Your task to perform on an android device: Add "macbook pro" to the cart on walmart Image 0: 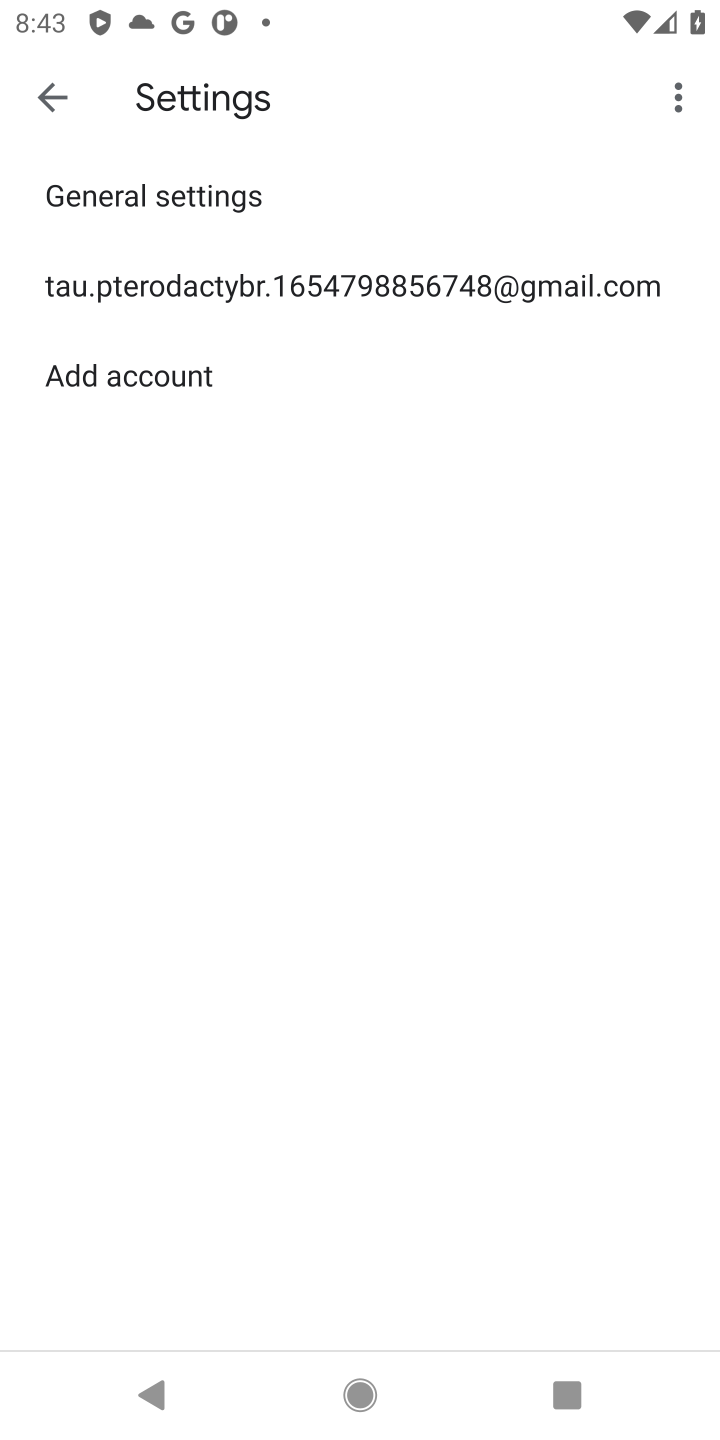
Step 0: press home button
Your task to perform on an android device: Add "macbook pro" to the cart on walmart Image 1: 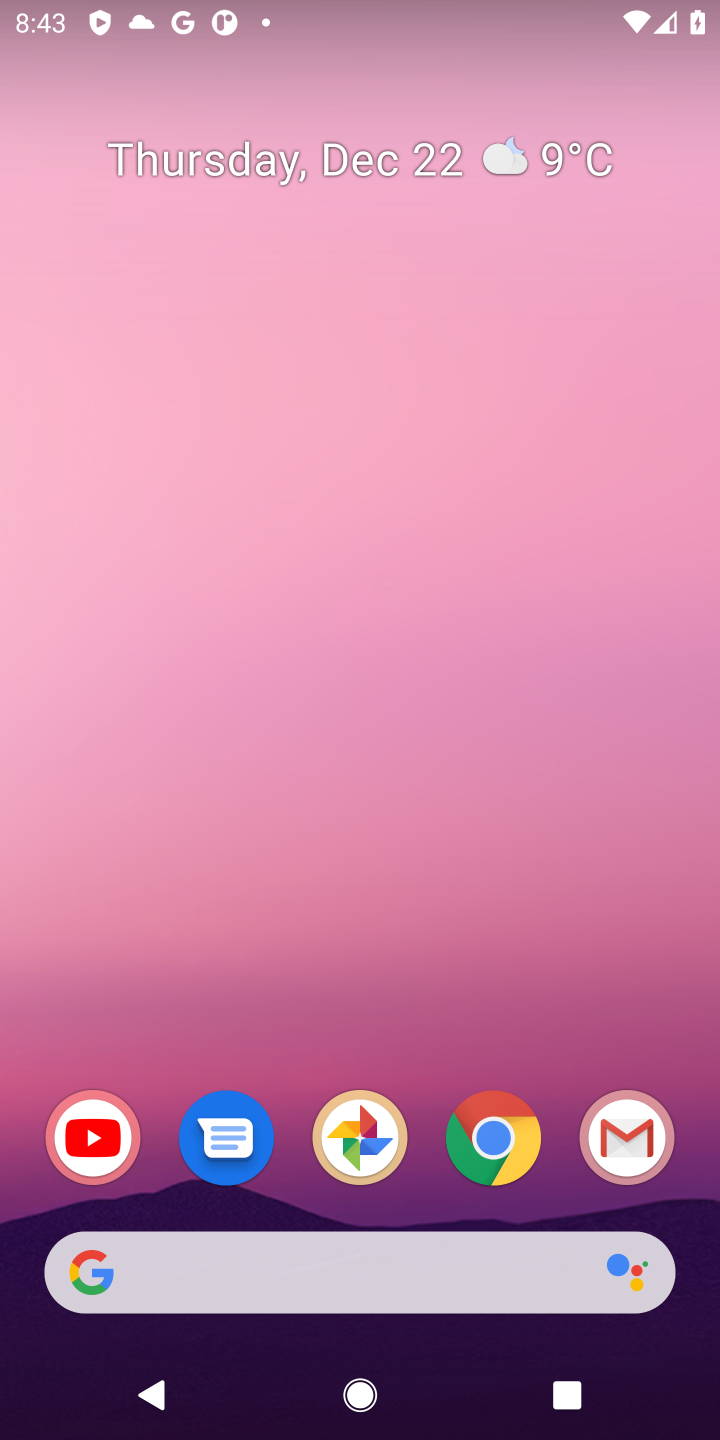
Step 1: click (500, 1144)
Your task to perform on an android device: Add "macbook pro" to the cart on walmart Image 2: 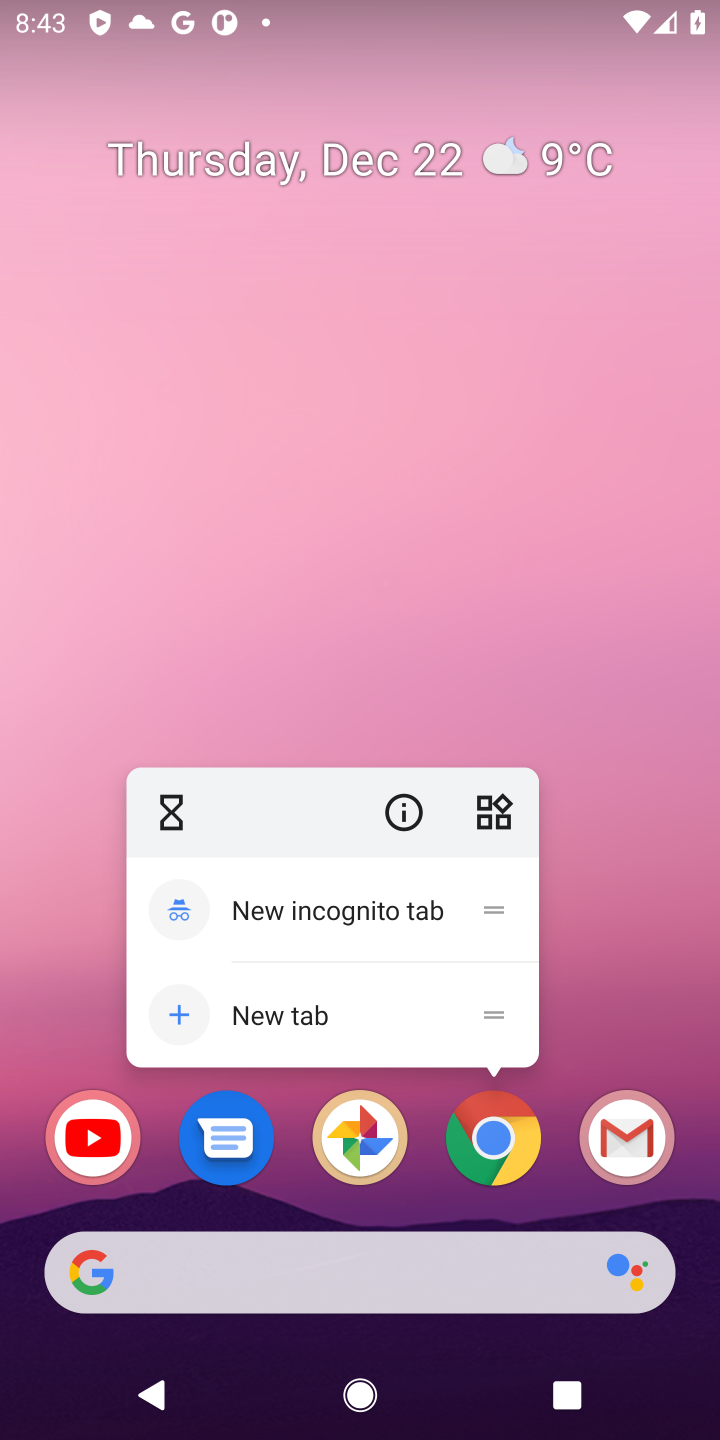
Step 2: click (506, 1159)
Your task to perform on an android device: Add "macbook pro" to the cart on walmart Image 3: 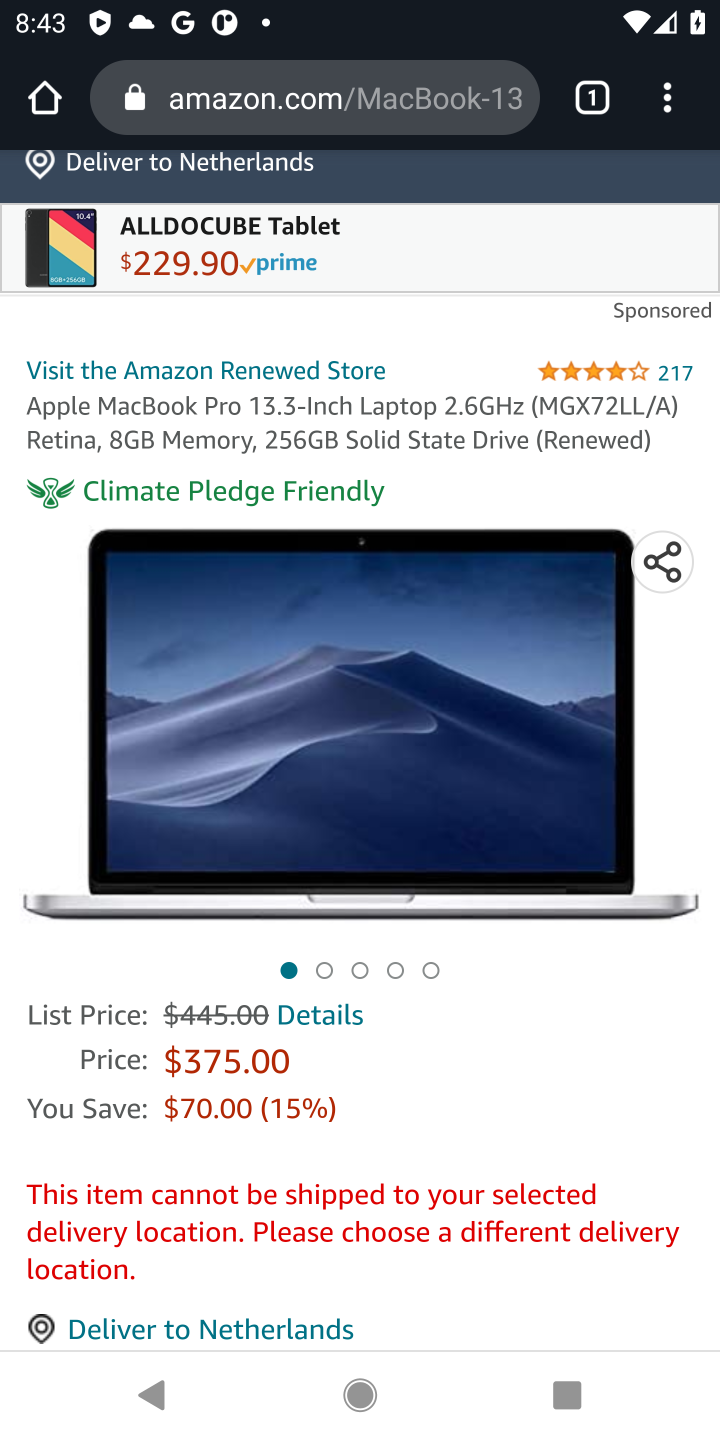
Step 3: click (294, 97)
Your task to perform on an android device: Add "macbook pro" to the cart on walmart Image 4: 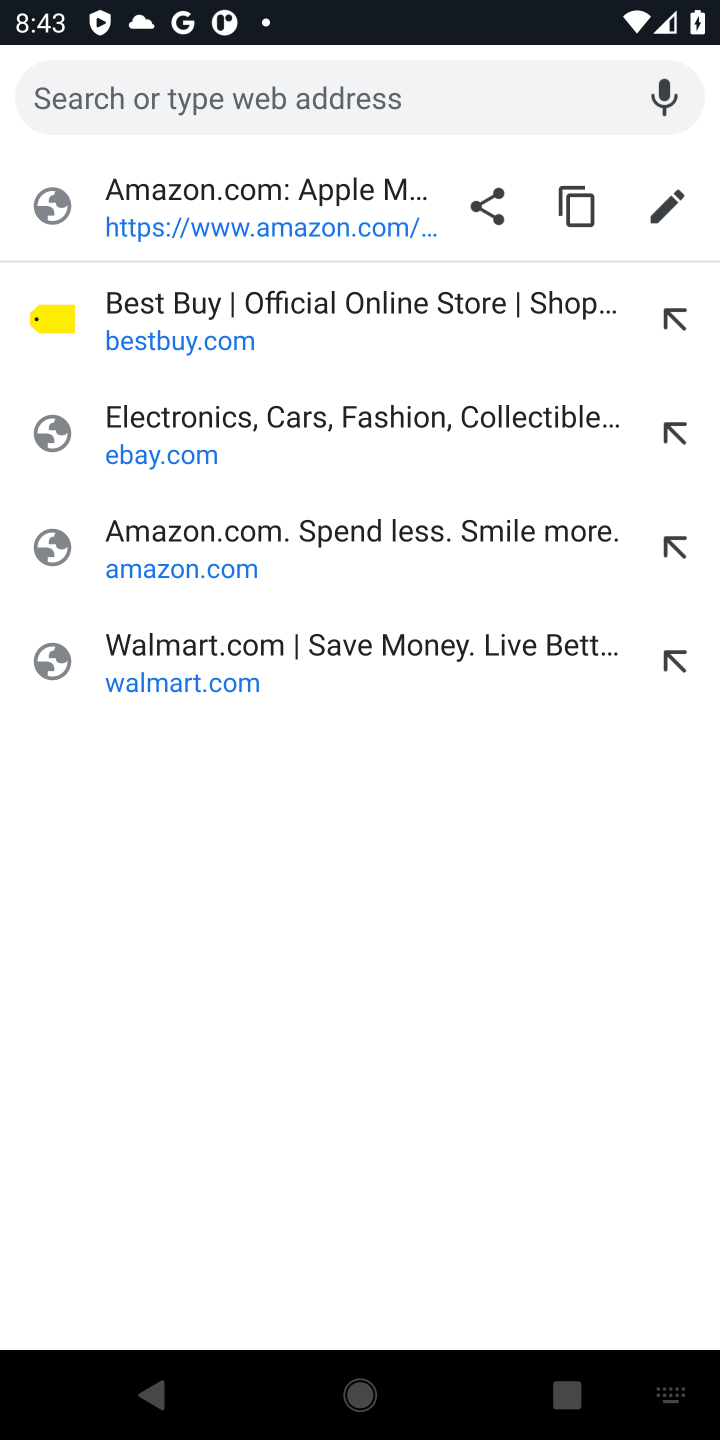
Step 4: type "walmart"
Your task to perform on an android device: Add "macbook pro" to the cart on walmart Image 5: 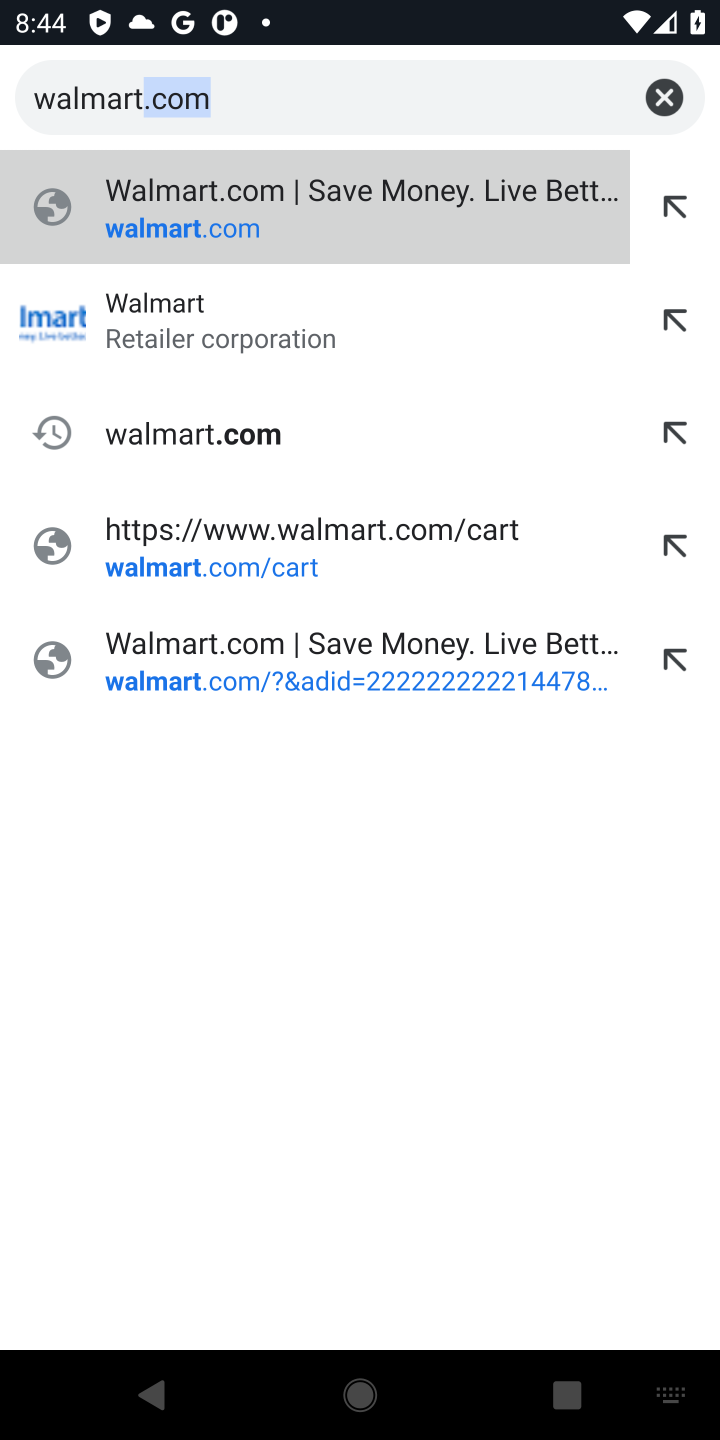
Step 5: click (361, 227)
Your task to perform on an android device: Add "macbook pro" to the cart on walmart Image 6: 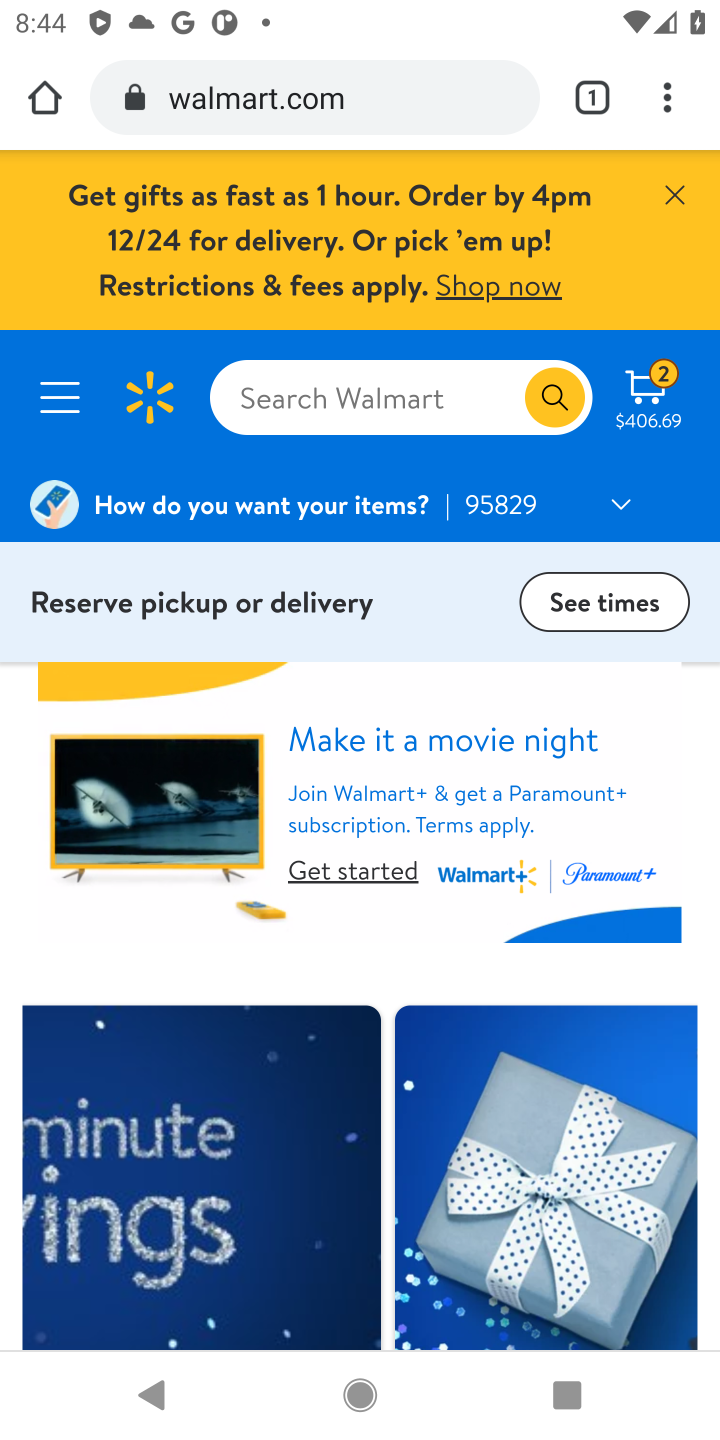
Step 6: click (639, 403)
Your task to perform on an android device: Add "macbook pro" to the cart on walmart Image 7: 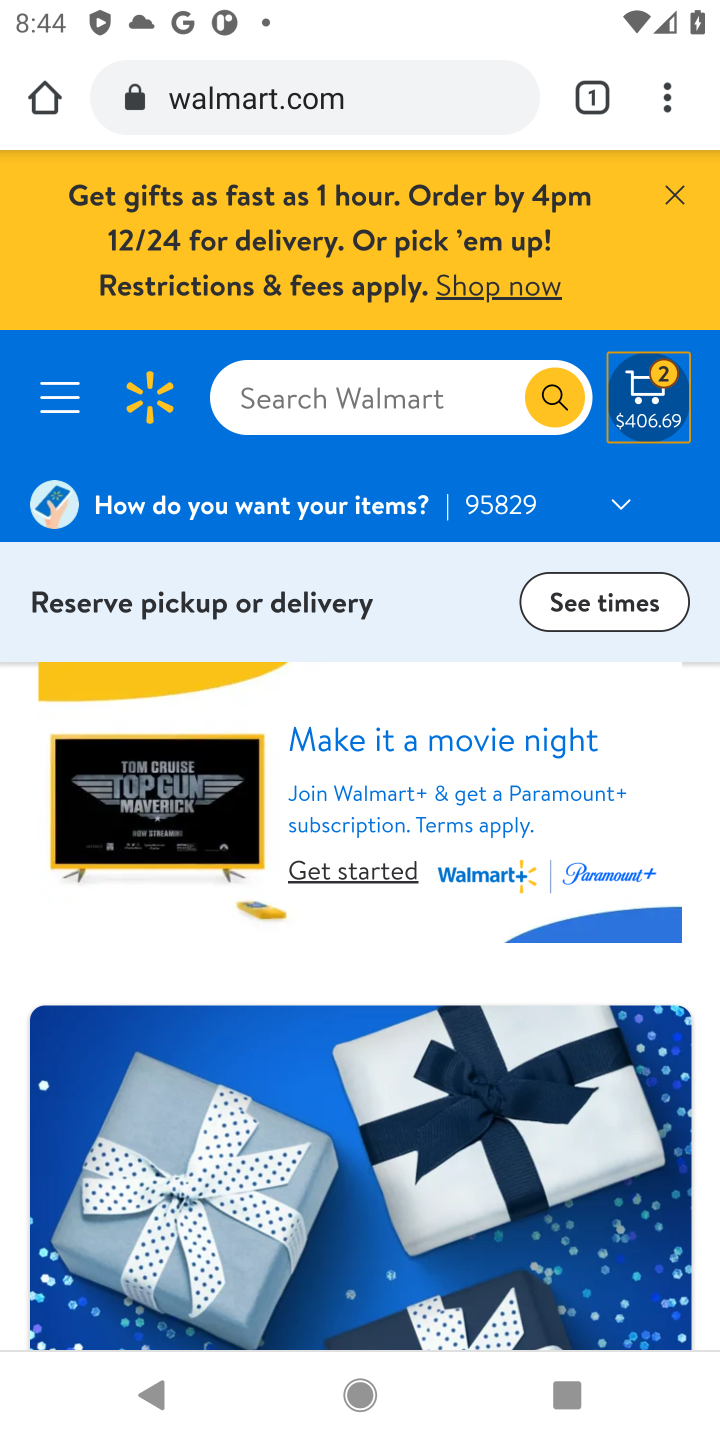
Step 7: click (652, 420)
Your task to perform on an android device: Add "macbook pro" to the cart on walmart Image 8: 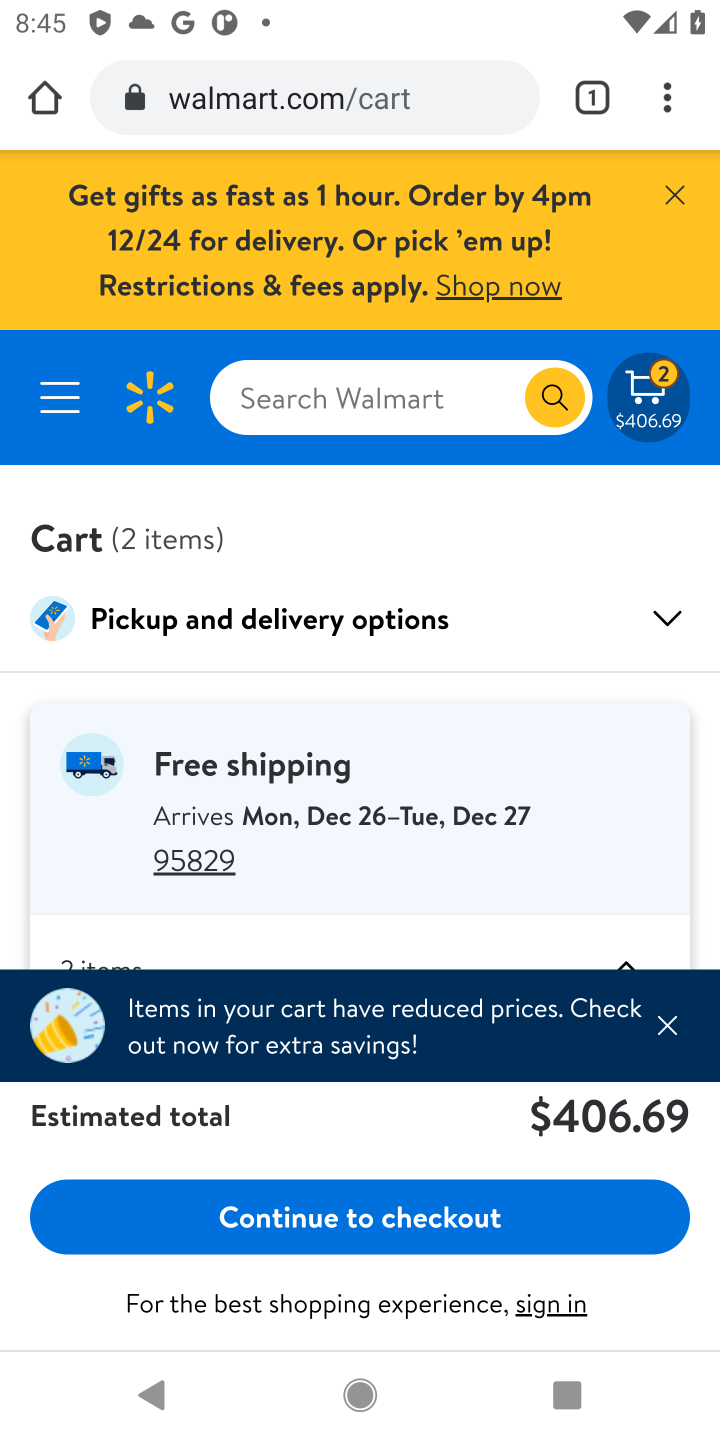
Step 8: task complete